Your task to perform on an android device: change the upload size in google photos Image 0: 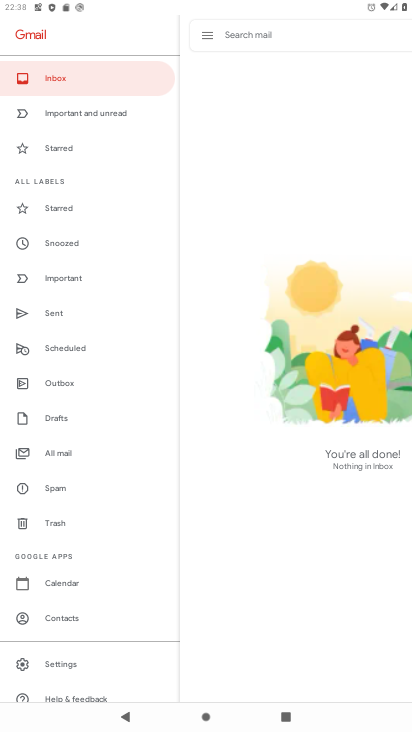
Step 0: press home button
Your task to perform on an android device: change the upload size in google photos Image 1: 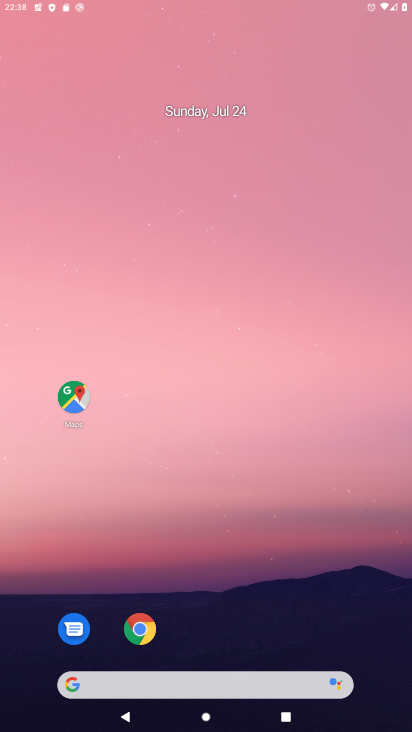
Step 1: drag from (107, 545) to (176, 280)
Your task to perform on an android device: change the upload size in google photos Image 2: 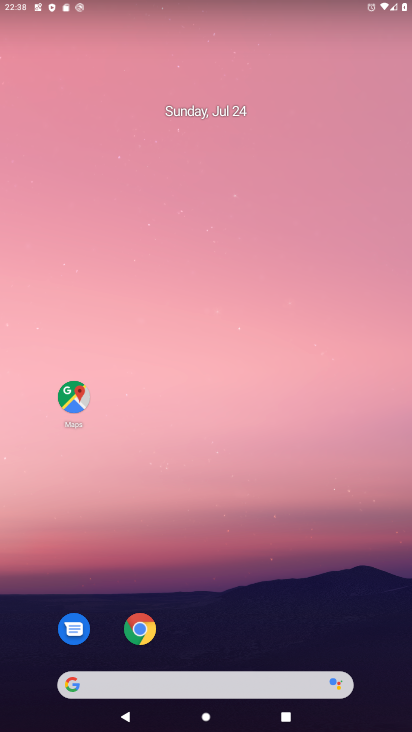
Step 2: drag from (170, 666) to (310, 102)
Your task to perform on an android device: change the upload size in google photos Image 3: 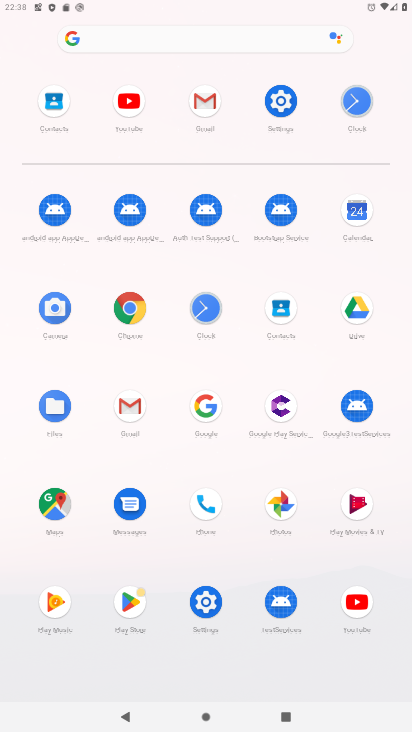
Step 3: click (268, 511)
Your task to perform on an android device: change the upload size in google photos Image 4: 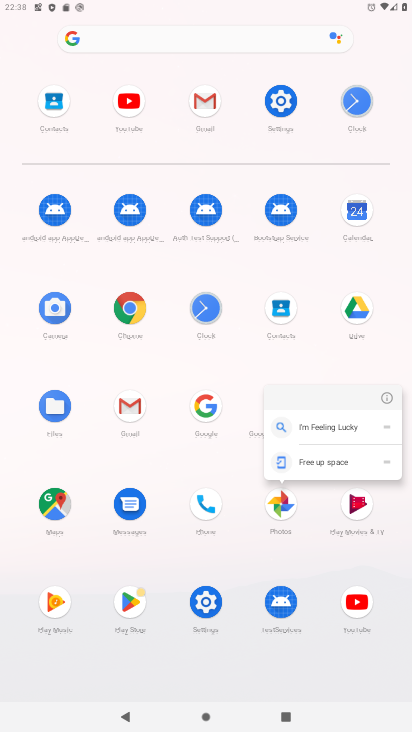
Step 4: click (390, 394)
Your task to perform on an android device: change the upload size in google photos Image 5: 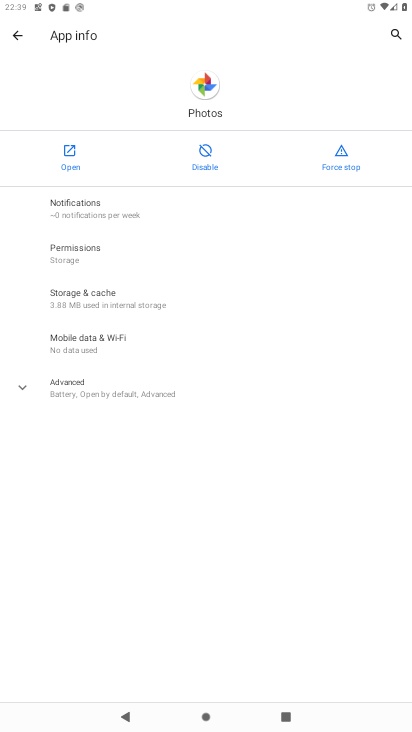
Step 5: click (253, 394)
Your task to perform on an android device: change the upload size in google photos Image 6: 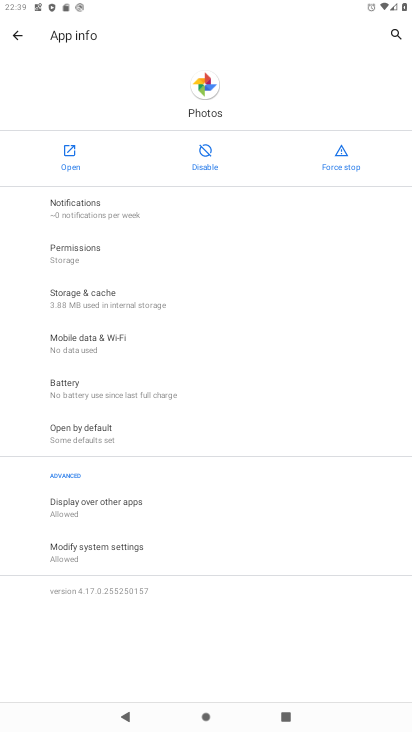
Step 6: click (79, 152)
Your task to perform on an android device: change the upload size in google photos Image 7: 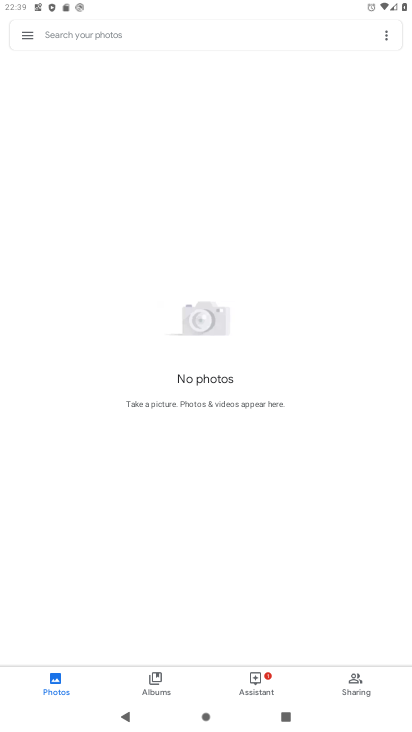
Step 7: click (15, 32)
Your task to perform on an android device: change the upload size in google photos Image 8: 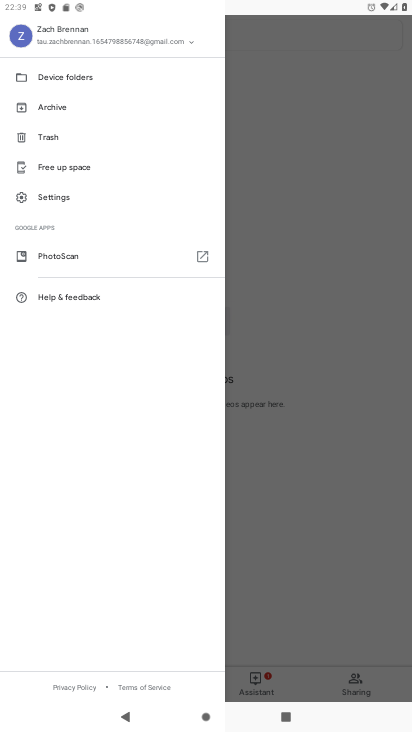
Step 8: click (96, 200)
Your task to perform on an android device: change the upload size in google photos Image 9: 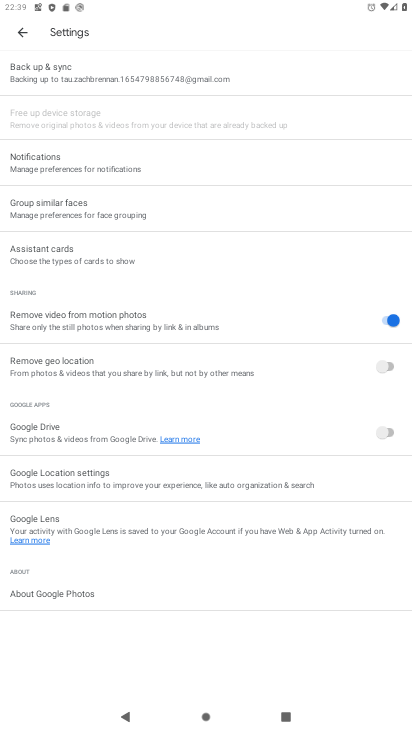
Step 9: drag from (125, 562) to (178, 292)
Your task to perform on an android device: change the upload size in google photos Image 10: 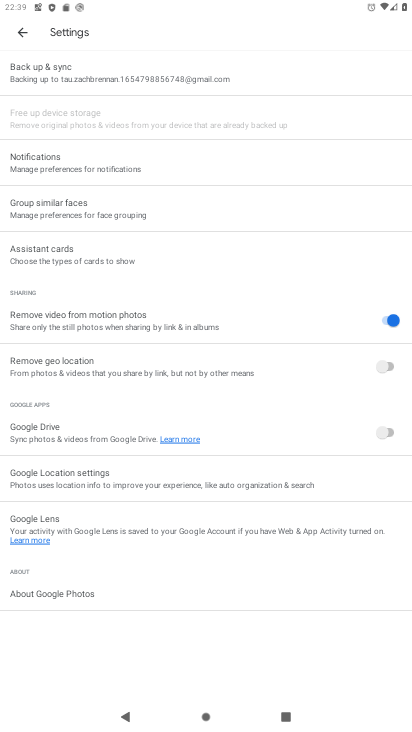
Step 10: click (158, 88)
Your task to perform on an android device: change the upload size in google photos Image 11: 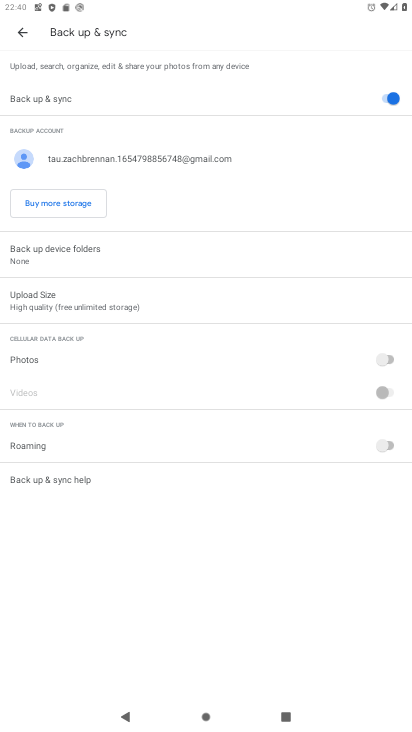
Step 11: task complete